Your task to perform on an android device: open sync settings in chrome Image 0: 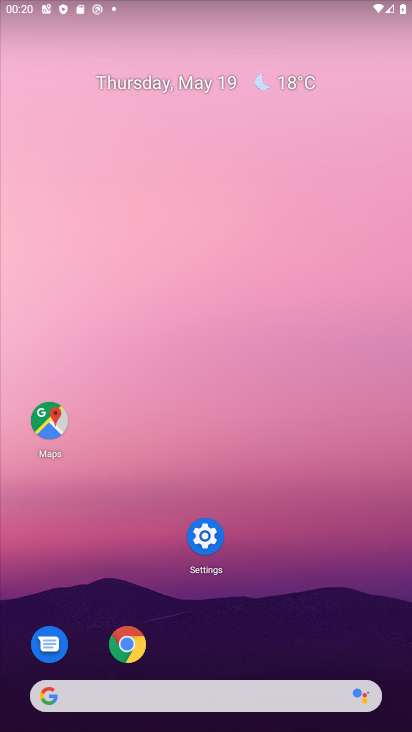
Step 0: click (128, 650)
Your task to perform on an android device: open sync settings in chrome Image 1: 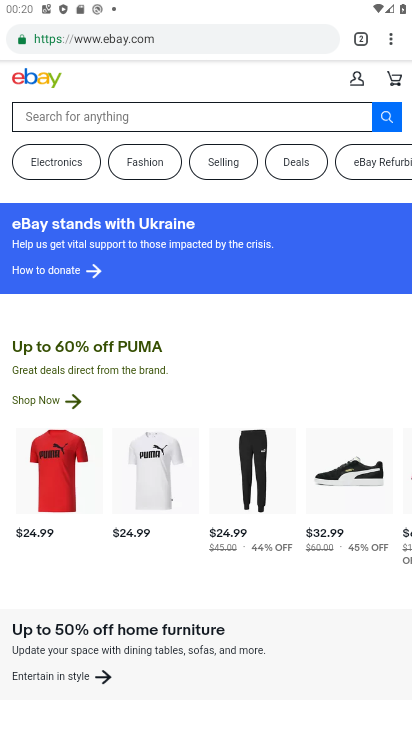
Step 1: drag from (393, 42) to (248, 475)
Your task to perform on an android device: open sync settings in chrome Image 2: 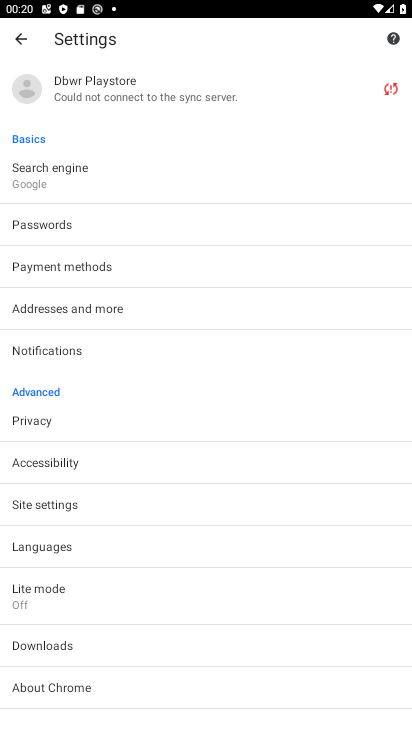
Step 2: click (128, 80)
Your task to perform on an android device: open sync settings in chrome Image 3: 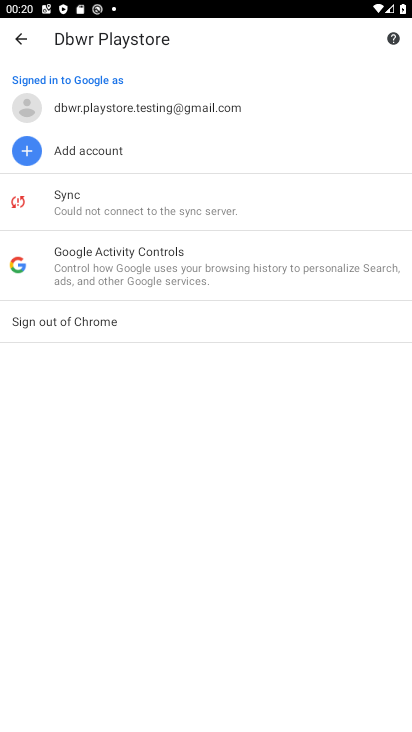
Step 3: click (99, 194)
Your task to perform on an android device: open sync settings in chrome Image 4: 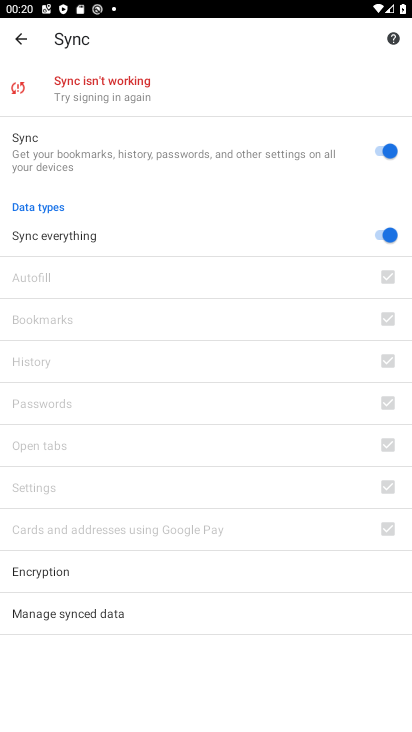
Step 4: task complete